Your task to perform on an android device: Do I have any events today? Image 0: 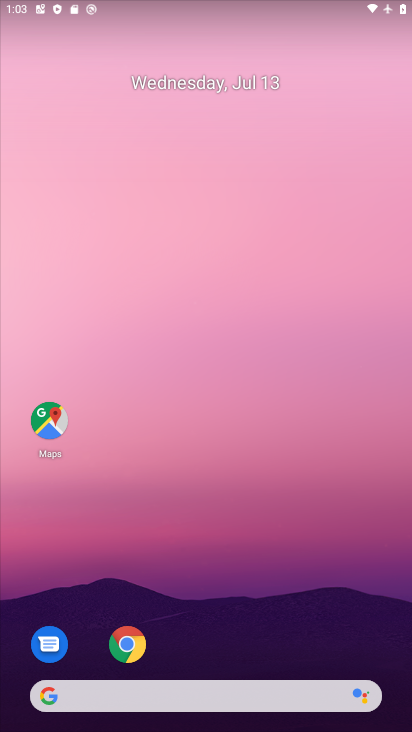
Step 0: drag from (277, 582) to (266, 59)
Your task to perform on an android device: Do I have any events today? Image 1: 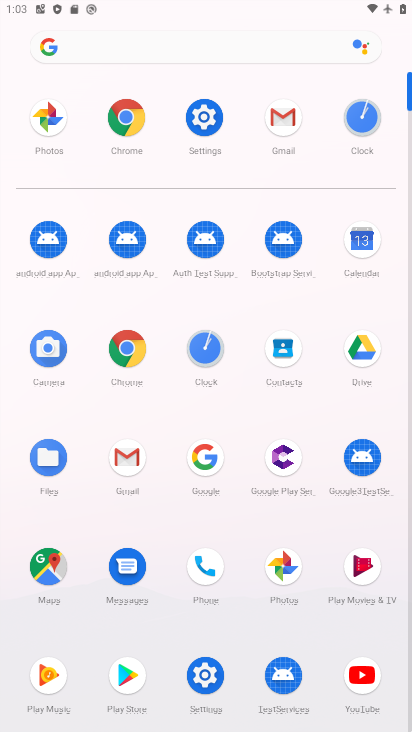
Step 1: click (372, 249)
Your task to perform on an android device: Do I have any events today? Image 2: 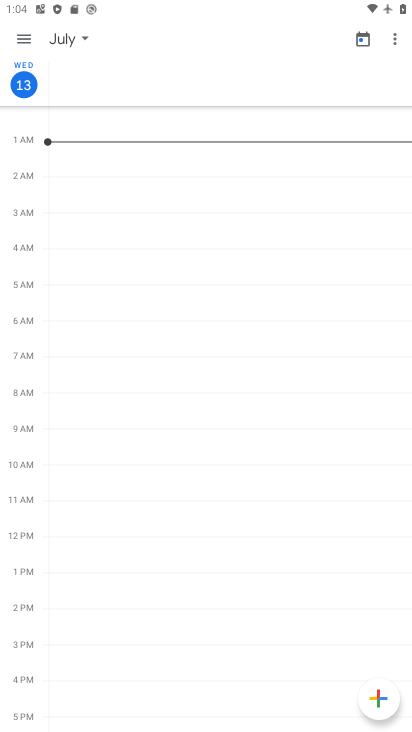
Step 2: task complete